Your task to perform on an android device: Open Google Chrome and open the bookmarks view Image 0: 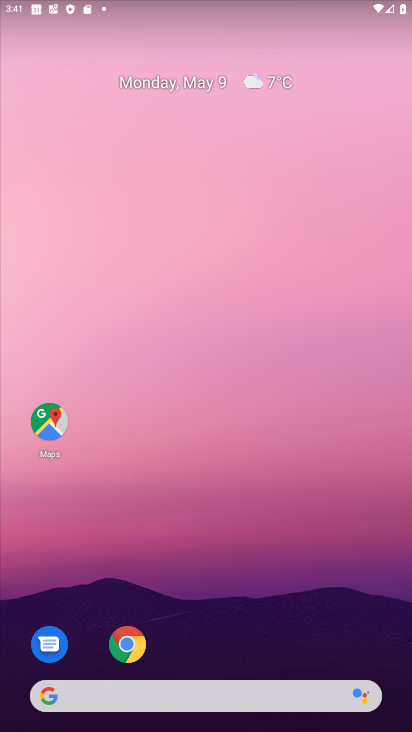
Step 0: drag from (321, 730) to (217, 113)
Your task to perform on an android device: Open Google Chrome and open the bookmarks view Image 1: 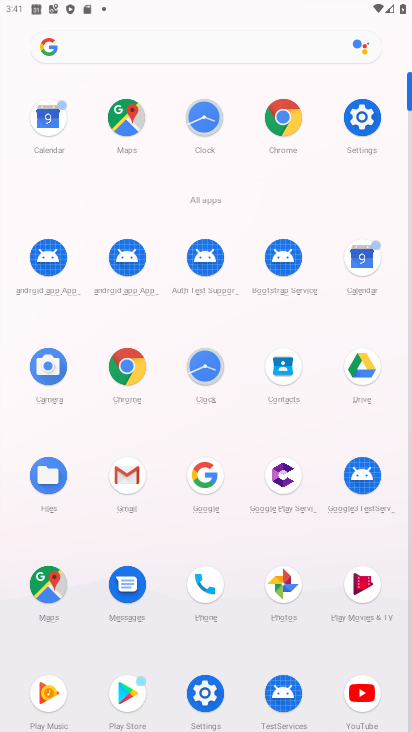
Step 1: click (286, 112)
Your task to perform on an android device: Open Google Chrome and open the bookmarks view Image 2: 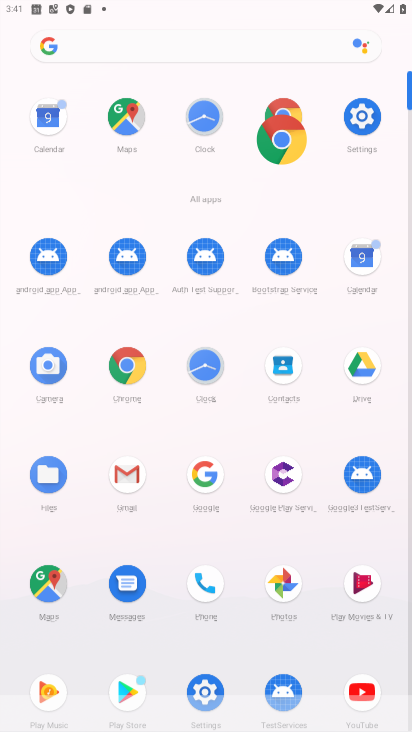
Step 2: click (286, 112)
Your task to perform on an android device: Open Google Chrome and open the bookmarks view Image 3: 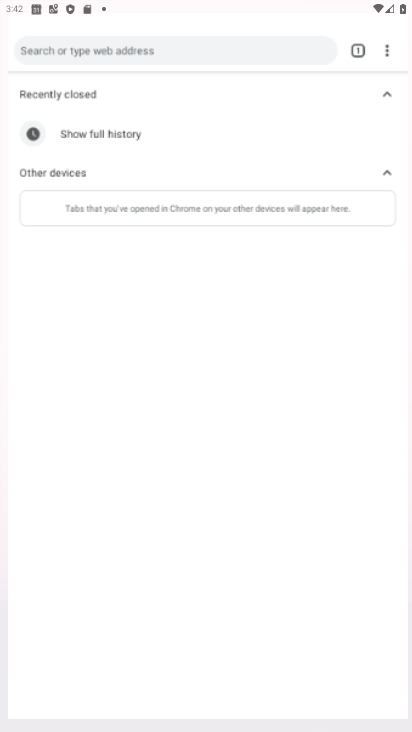
Step 3: click (286, 112)
Your task to perform on an android device: Open Google Chrome and open the bookmarks view Image 4: 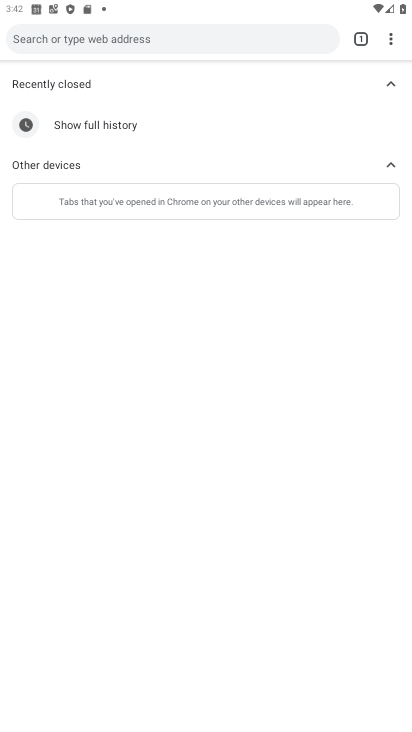
Step 4: drag from (391, 31) to (259, 181)
Your task to perform on an android device: Open Google Chrome and open the bookmarks view Image 5: 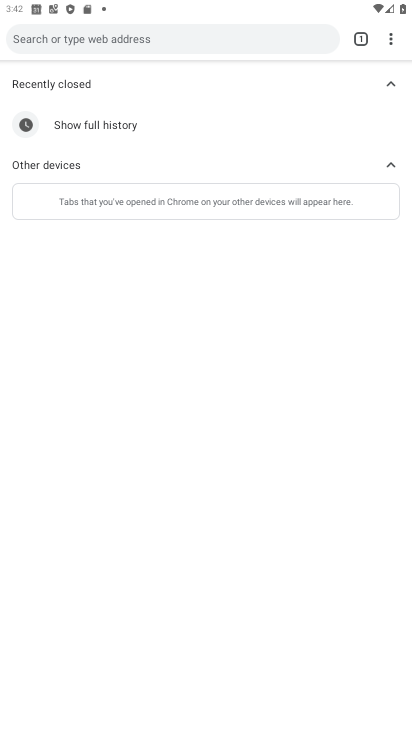
Step 5: click (259, 181)
Your task to perform on an android device: Open Google Chrome and open the bookmarks view Image 6: 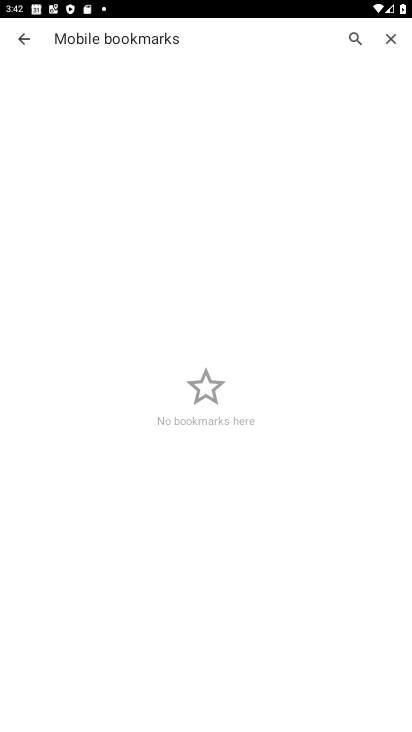
Step 6: click (259, 181)
Your task to perform on an android device: Open Google Chrome and open the bookmarks view Image 7: 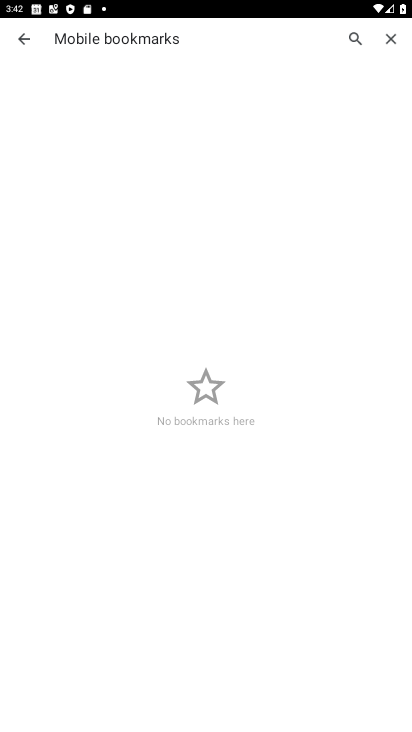
Step 7: task complete